Your task to perform on an android device: Do I have any events today? Image 0: 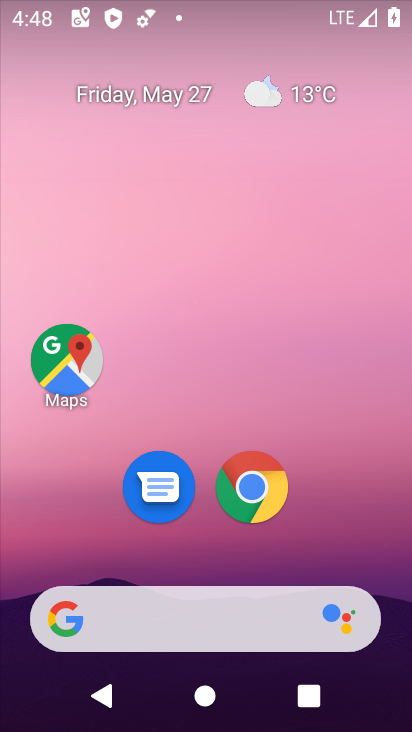
Step 0: drag from (353, 499) to (309, 107)
Your task to perform on an android device: Do I have any events today? Image 1: 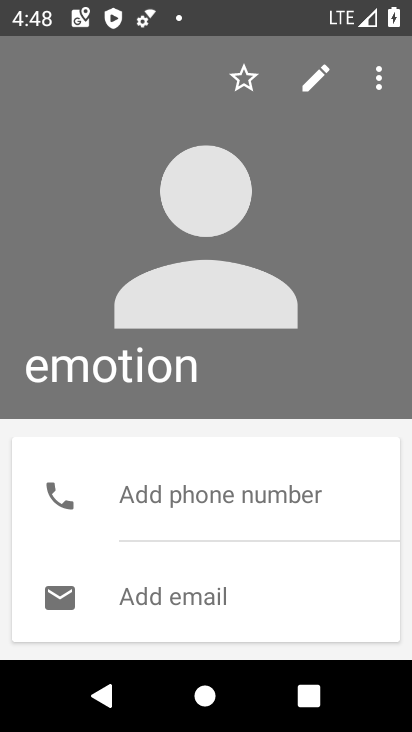
Step 1: press home button
Your task to perform on an android device: Do I have any events today? Image 2: 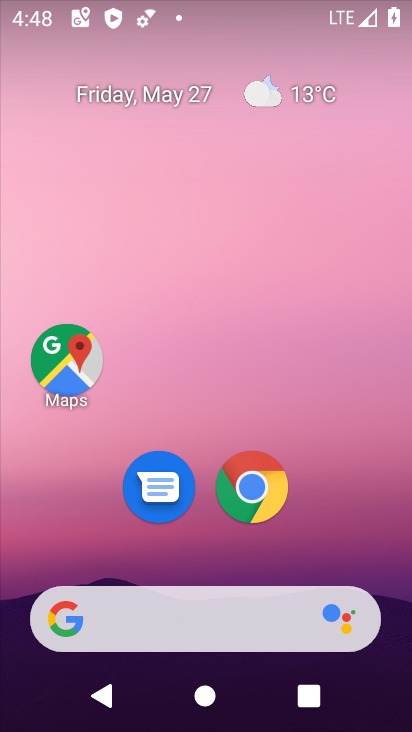
Step 2: drag from (327, 495) to (301, 72)
Your task to perform on an android device: Do I have any events today? Image 3: 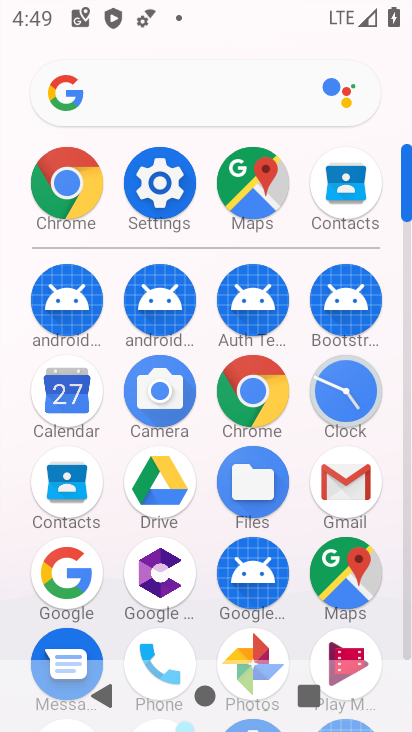
Step 3: click (79, 388)
Your task to perform on an android device: Do I have any events today? Image 4: 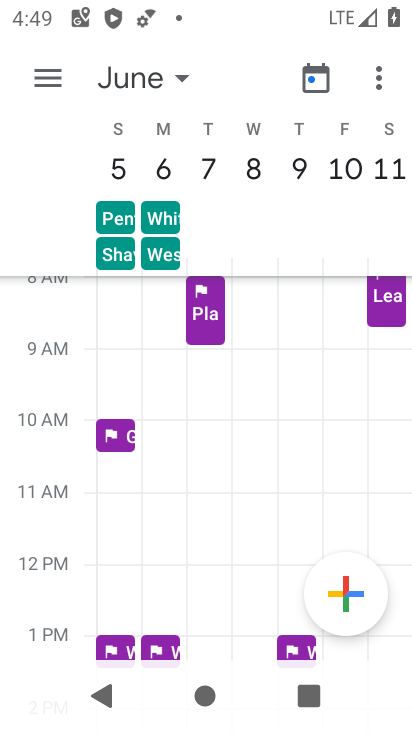
Step 4: click (136, 69)
Your task to perform on an android device: Do I have any events today? Image 5: 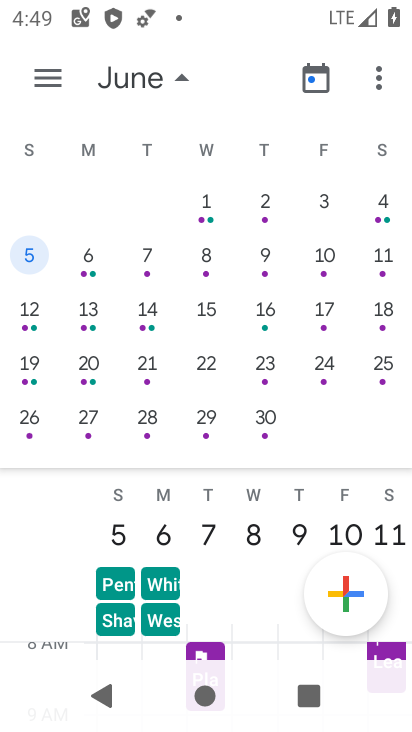
Step 5: click (26, 305)
Your task to perform on an android device: Do I have any events today? Image 6: 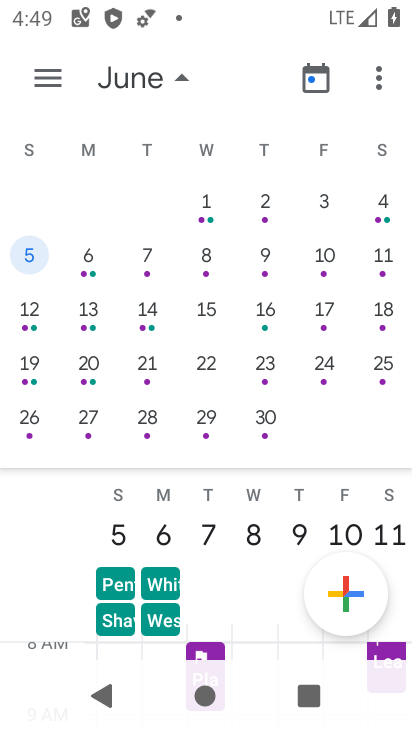
Step 6: drag from (62, 301) to (390, 292)
Your task to perform on an android device: Do I have any events today? Image 7: 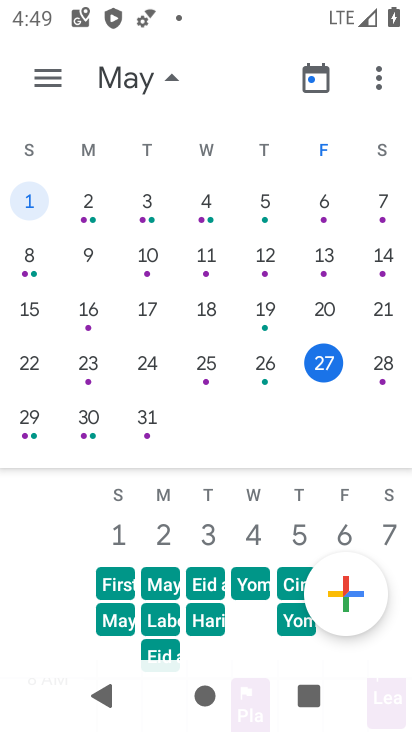
Step 7: click (331, 368)
Your task to perform on an android device: Do I have any events today? Image 8: 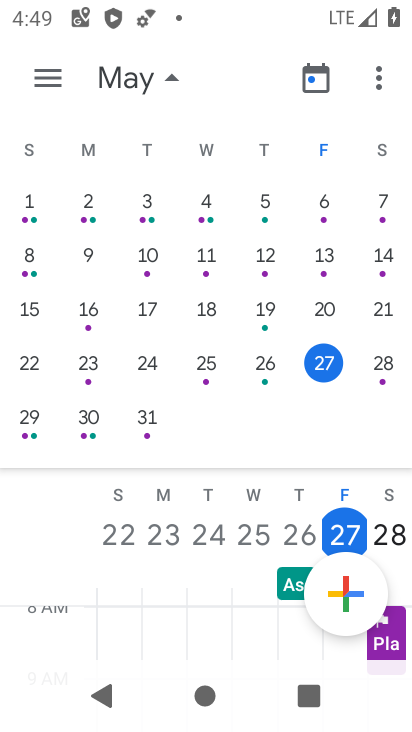
Step 8: task complete